Your task to perform on an android device: toggle location history Image 0: 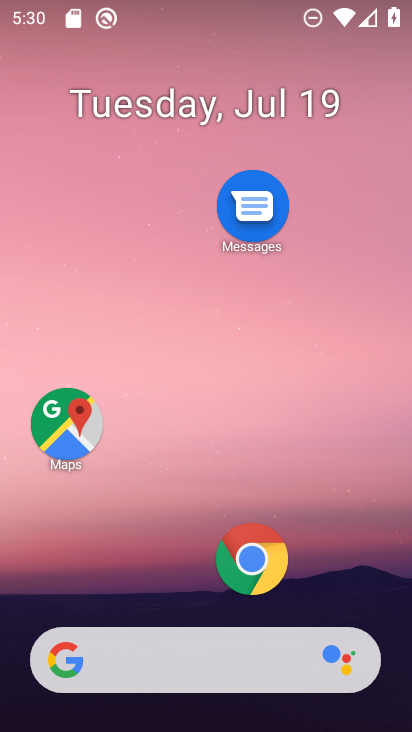
Step 0: drag from (180, 603) to (264, 17)
Your task to perform on an android device: toggle location history Image 1: 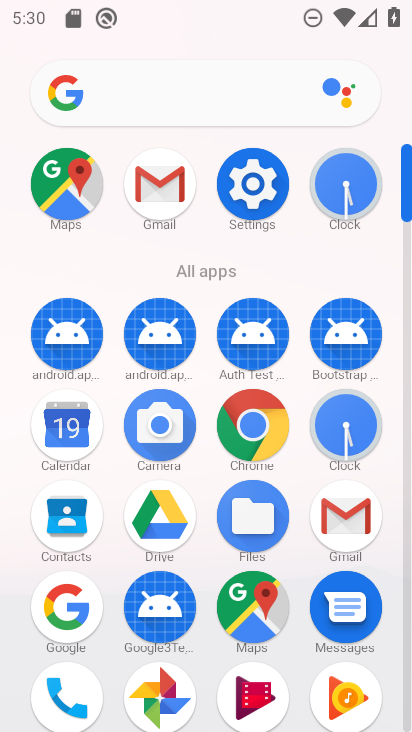
Step 1: click (243, 177)
Your task to perform on an android device: toggle location history Image 2: 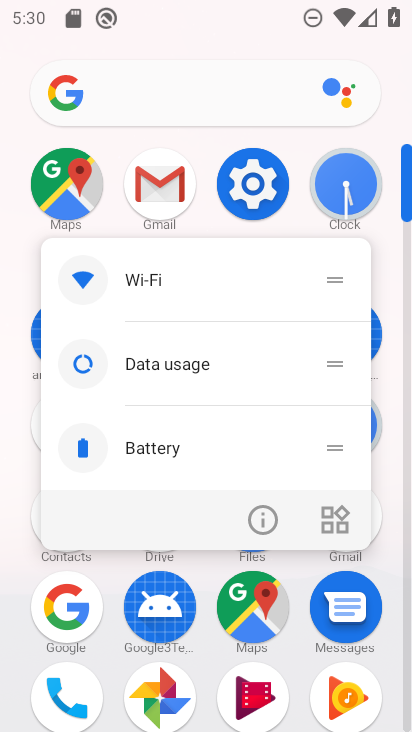
Step 2: click (233, 172)
Your task to perform on an android device: toggle location history Image 3: 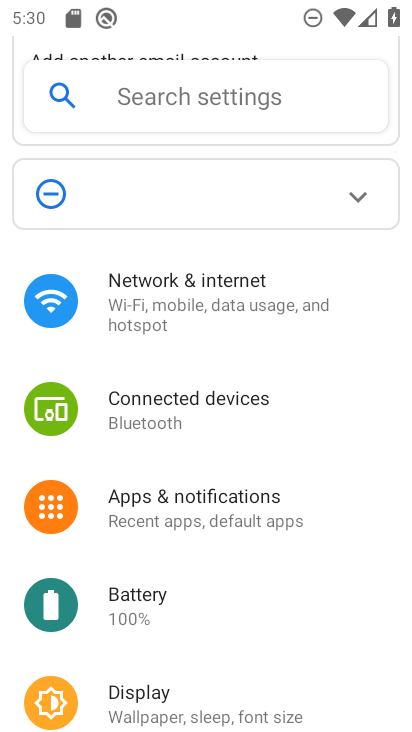
Step 3: drag from (156, 648) to (276, 78)
Your task to perform on an android device: toggle location history Image 4: 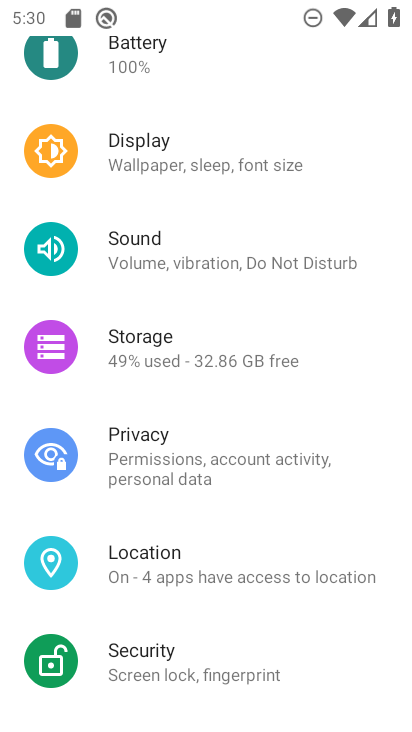
Step 4: click (129, 559)
Your task to perform on an android device: toggle location history Image 5: 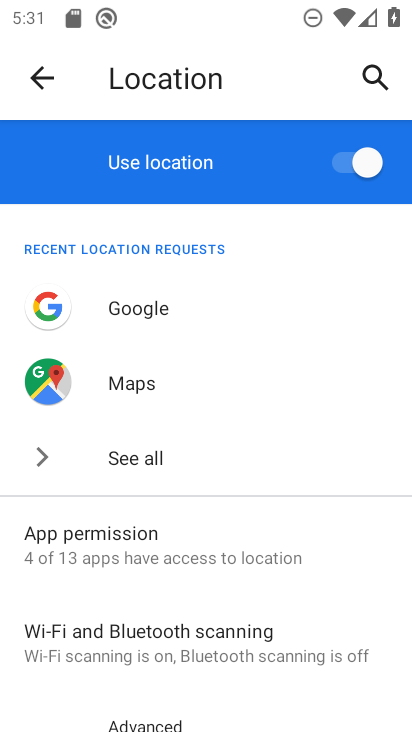
Step 5: drag from (200, 656) to (341, 106)
Your task to perform on an android device: toggle location history Image 6: 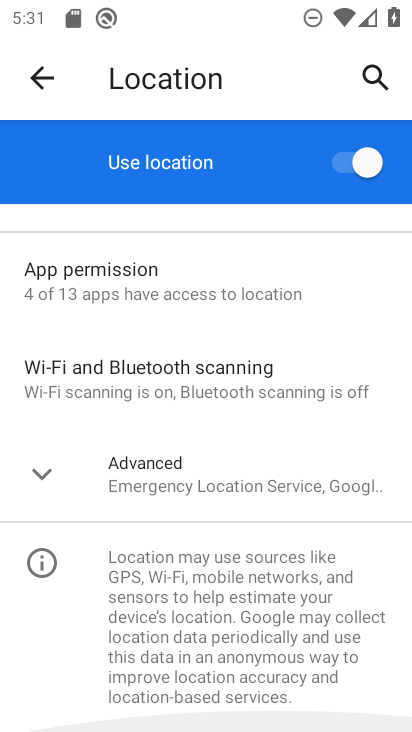
Step 6: click (166, 471)
Your task to perform on an android device: toggle location history Image 7: 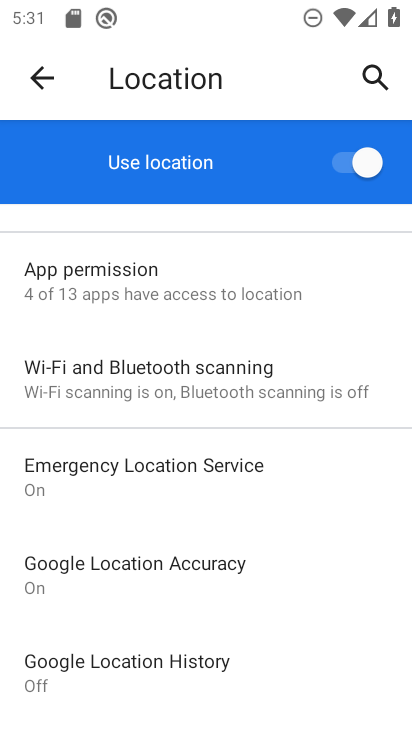
Step 7: click (148, 661)
Your task to perform on an android device: toggle location history Image 8: 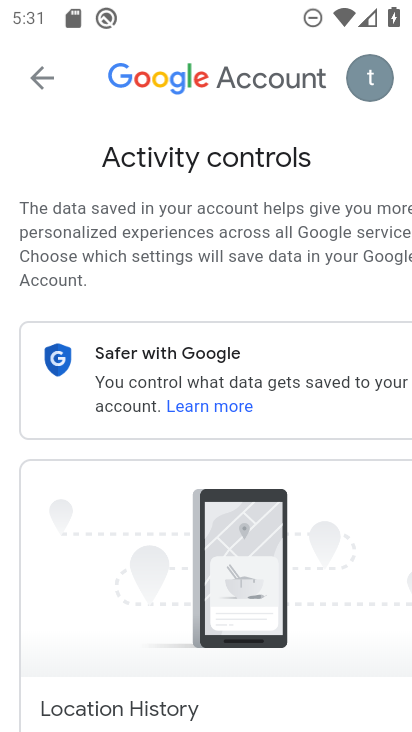
Step 8: drag from (267, 634) to (271, 87)
Your task to perform on an android device: toggle location history Image 9: 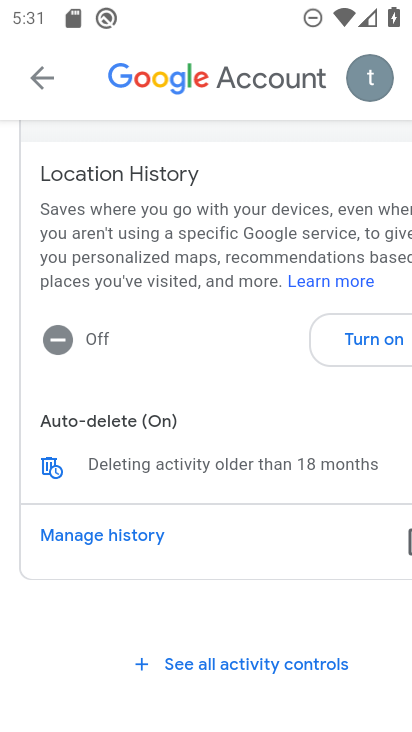
Step 9: click (368, 333)
Your task to perform on an android device: toggle location history Image 10: 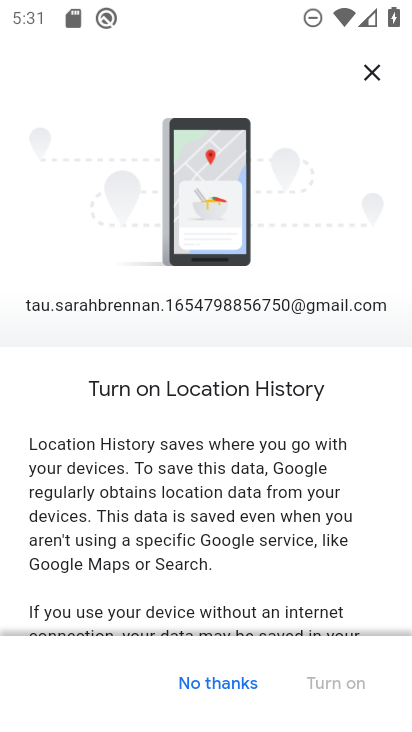
Step 10: drag from (212, 568) to (290, 18)
Your task to perform on an android device: toggle location history Image 11: 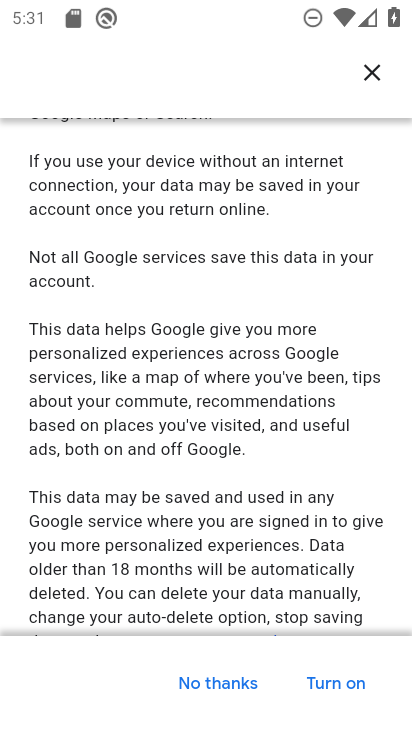
Step 11: drag from (203, 553) to (270, 58)
Your task to perform on an android device: toggle location history Image 12: 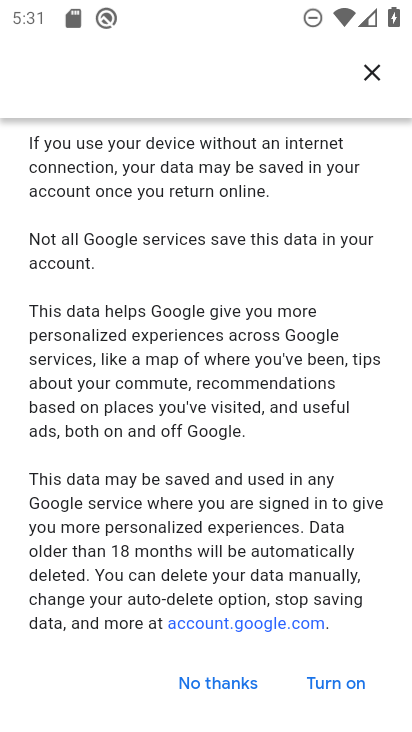
Step 12: click (342, 683)
Your task to perform on an android device: toggle location history Image 13: 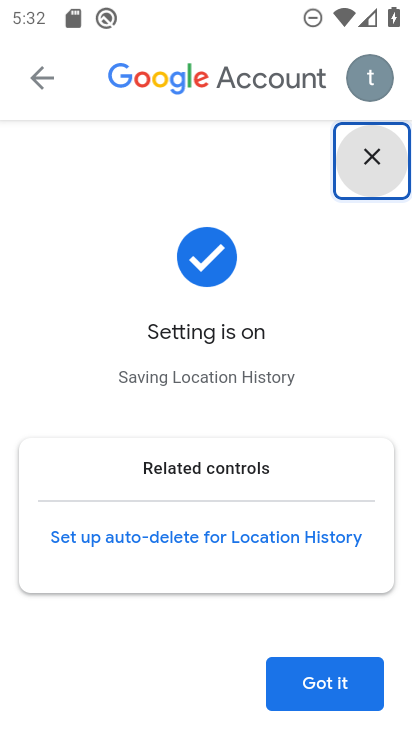
Step 13: click (307, 676)
Your task to perform on an android device: toggle location history Image 14: 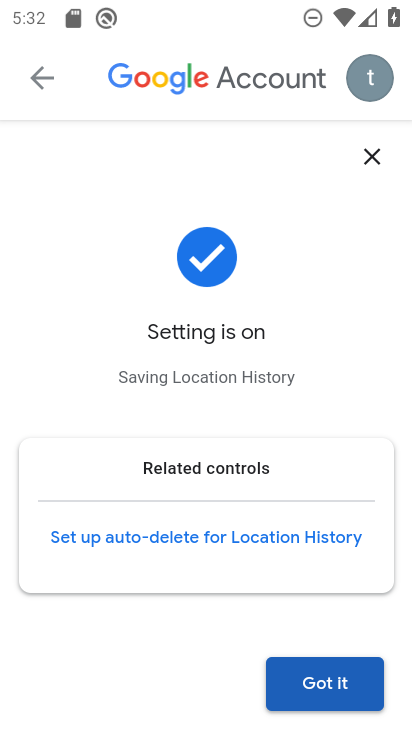
Step 14: task complete